Your task to perform on an android device: Go to Google Image 0: 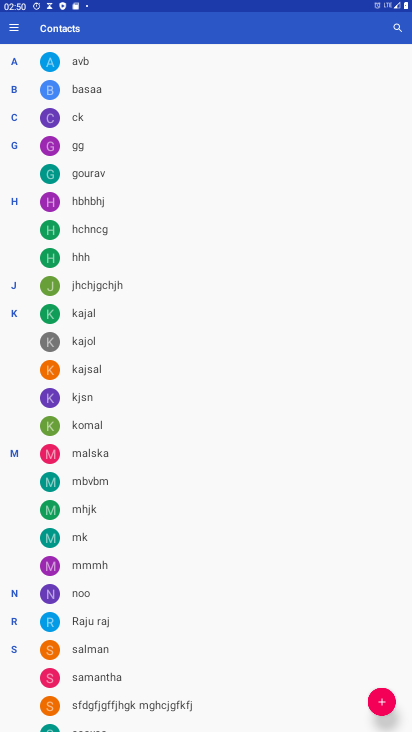
Step 0: press home button
Your task to perform on an android device: Go to Google Image 1: 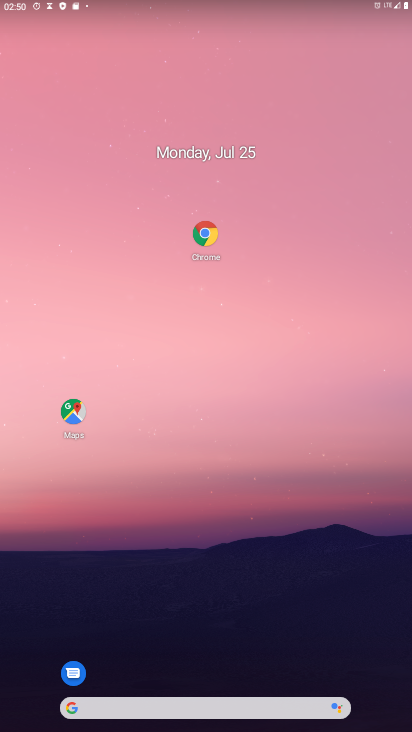
Step 1: drag from (282, 675) to (283, 54)
Your task to perform on an android device: Go to Google Image 2: 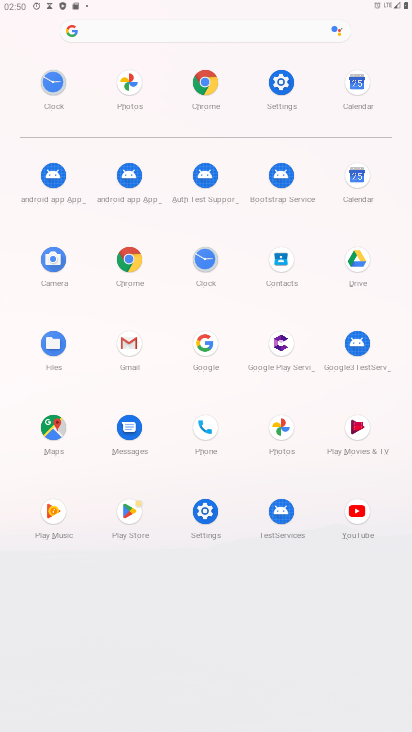
Step 2: click (140, 259)
Your task to perform on an android device: Go to Google Image 3: 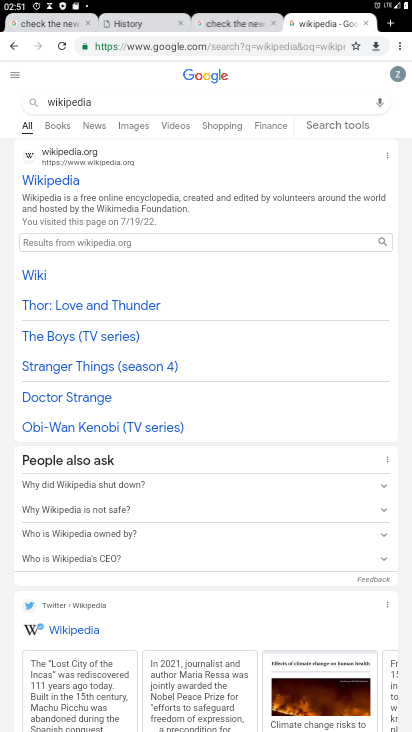
Step 3: task complete